Your task to perform on an android device: turn on javascript in the chrome app Image 0: 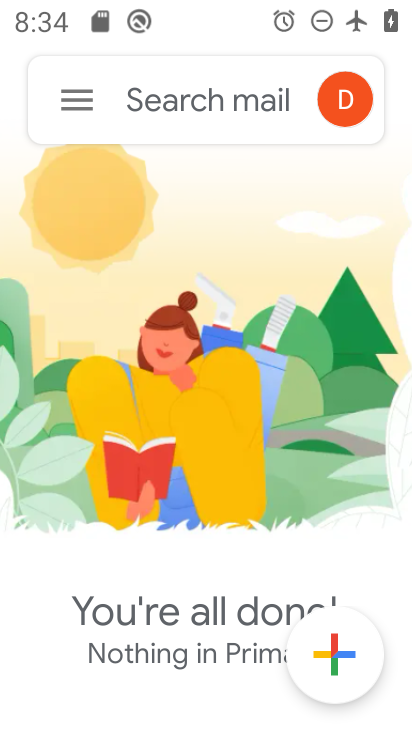
Step 0: press home button
Your task to perform on an android device: turn on javascript in the chrome app Image 1: 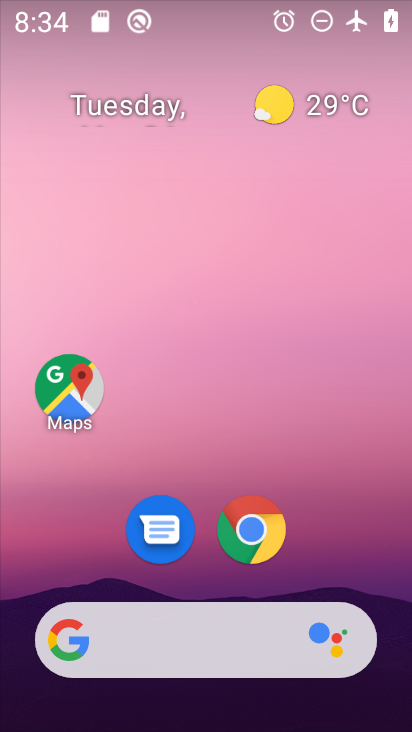
Step 1: drag from (393, 659) to (238, 89)
Your task to perform on an android device: turn on javascript in the chrome app Image 2: 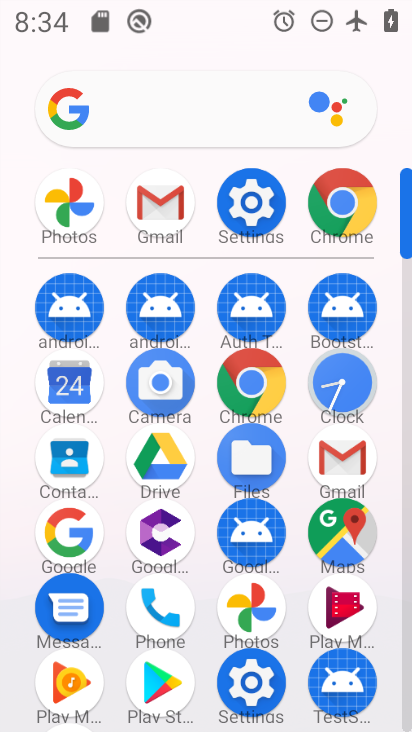
Step 2: click (351, 204)
Your task to perform on an android device: turn on javascript in the chrome app Image 3: 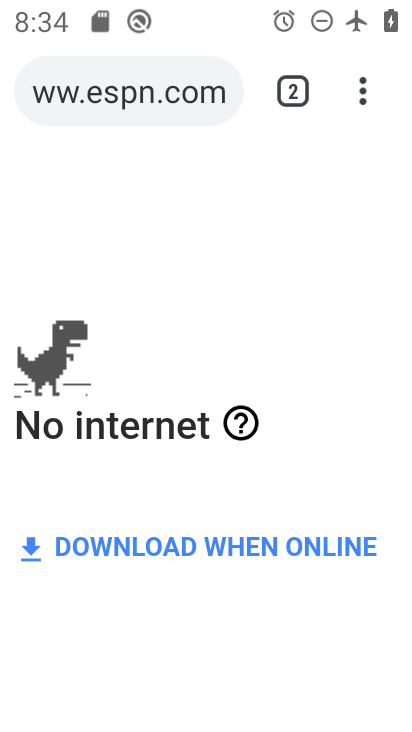
Step 3: press back button
Your task to perform on an android device: turn on javascript in the chrome app Image 4: 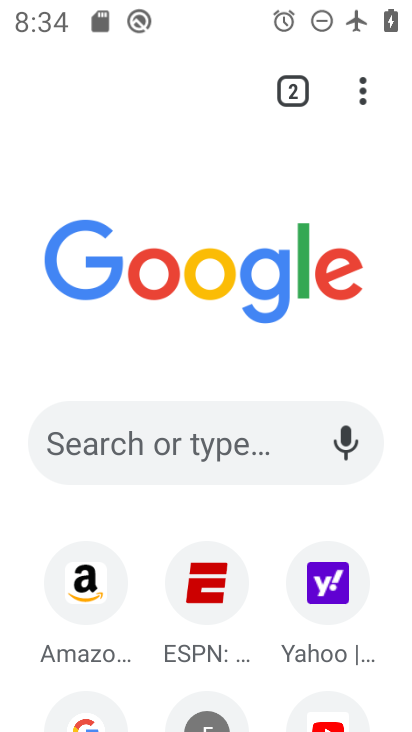
Step 4: click (358, 89)
Your task to perform on an android device: turn on javascript in the chrome app Image 5: 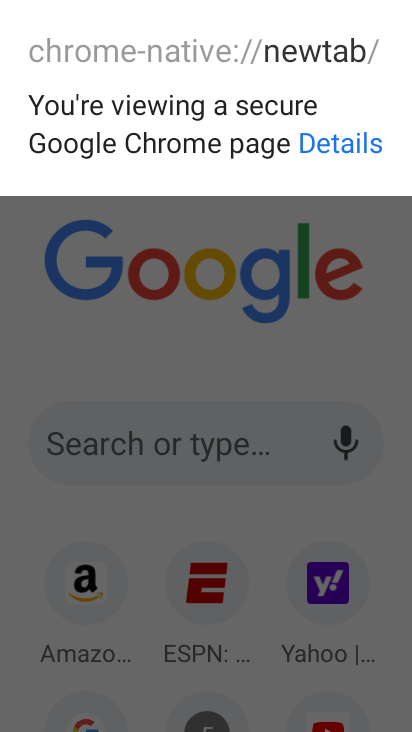
Step 5: press back button
Your task to perform on an android device: turn on javascript in the chrome app Image 6: 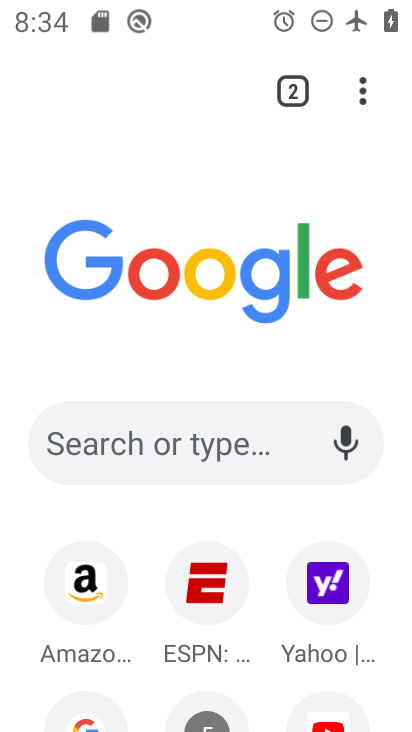
Step 6: click (370, 89)
Your task to perform on an android device: turn on javascript in the chrome app Image 7: 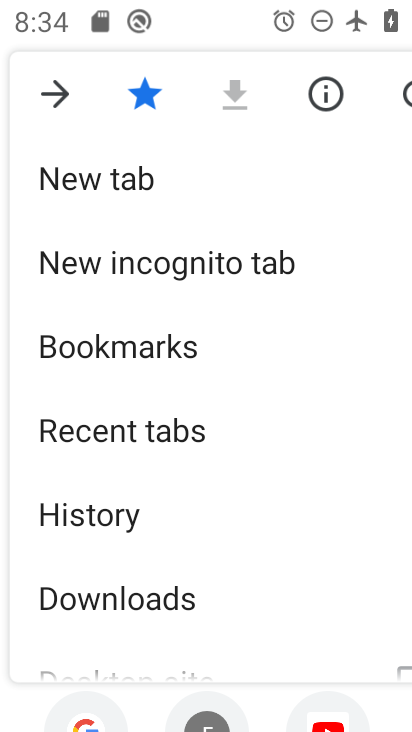
Step 7: drag from (202, 668) to (258, 229)
Your task to perform on an android device: turn on javascript in the chrome app Image 8: 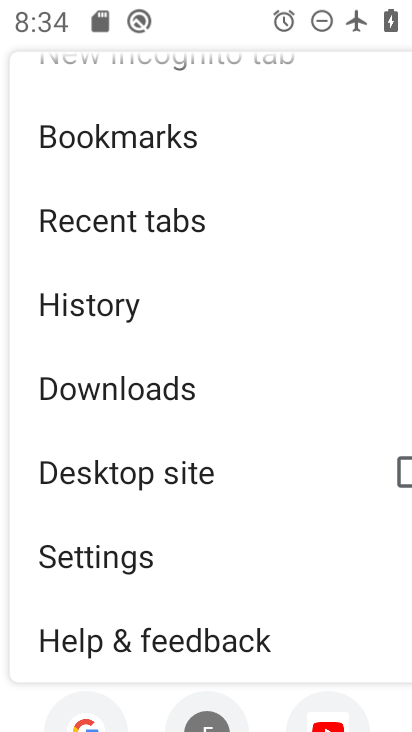
Step 8: click (122, 547)
Your task to perform on an android device: turn on javascript in the chrome app Image 9: 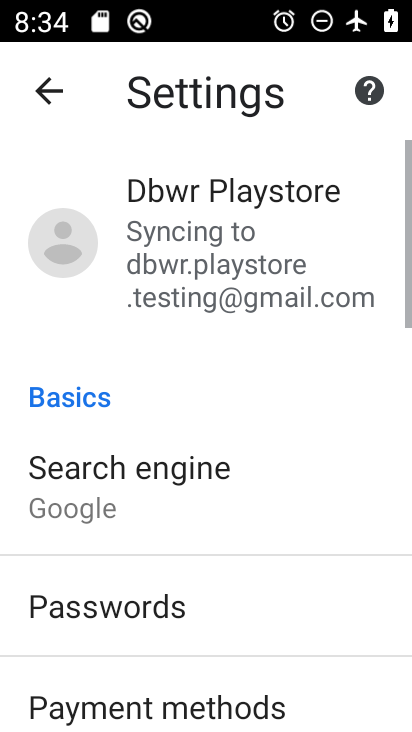
Step 9: drag from (135, 613) to (155, 569)
Your task to perform on an android device: turn on javascript in the chrome app Image 10: 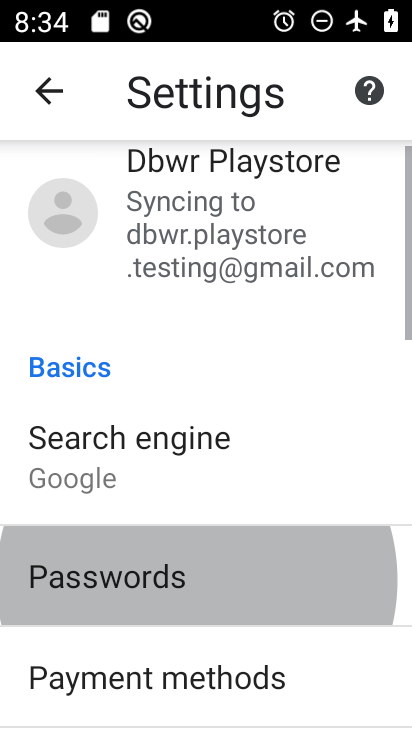
Step 10: drag from (192, 451) to (223, 237)
Your task to perform on an android device: turn on javascript in the chrome app Image 11: 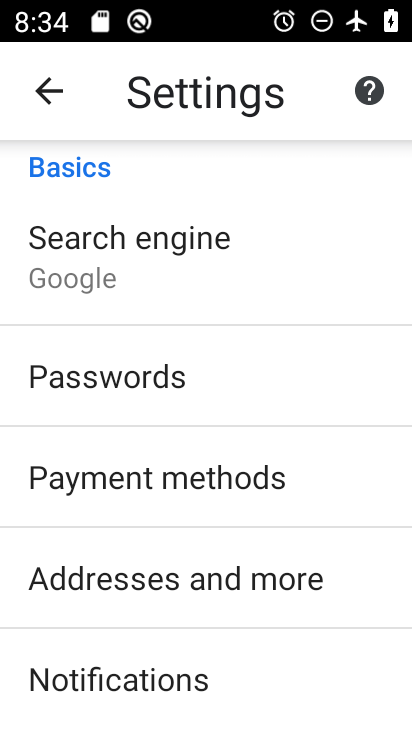
Step 11: drag from (204, 630) to (255, 243)
Your task to perform on an android device: turn on javascript in the chrome app Image 12: 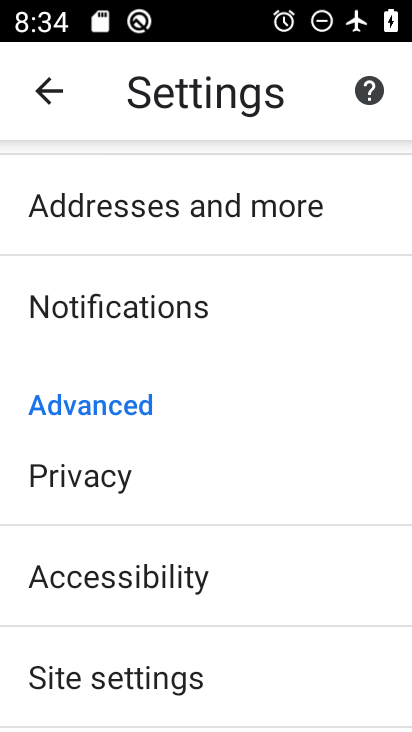
Step 12: drag from (168, 661) to (170, 271)
Your task to perform on an android device: turn on javascript in the chrome app Image 13: 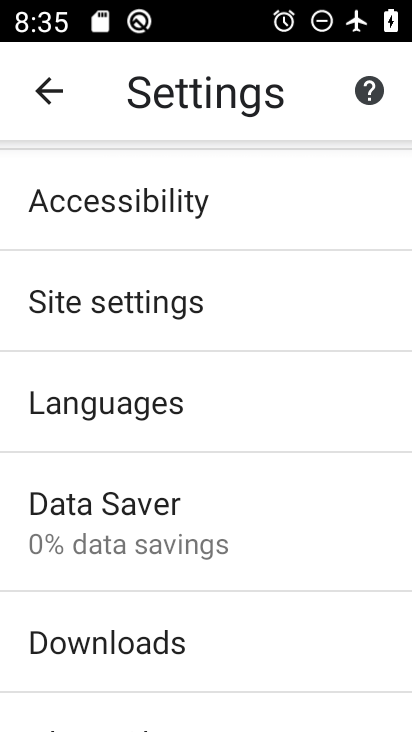
Step 13: click (234, 312)
Your task to perform on an android device: turn on javascript in the chrome app Image 14: 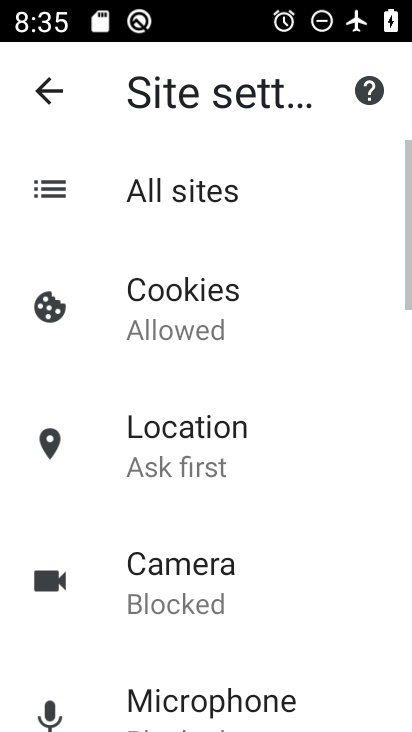
Step 14: drag from (214, 703) to (258, 230)
Your task to perform on an android device: turn on javascript in the chrome app Image 15: 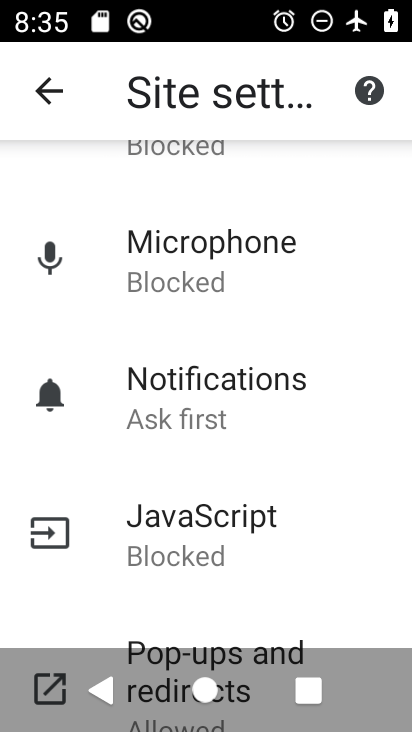
Step 15: click (236, 536)
Your task to perform on an android device: turn on javascript in the chrome app Image 16: 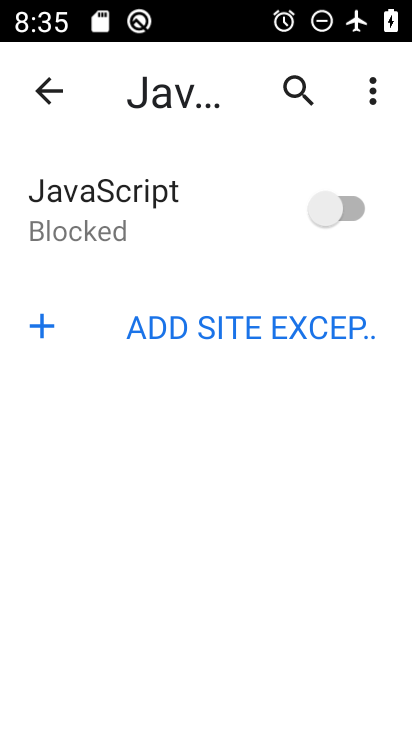
Step 16: click (344, 208)
Your task to perform on an android device: turn on javascript in the chrome app Image 17: 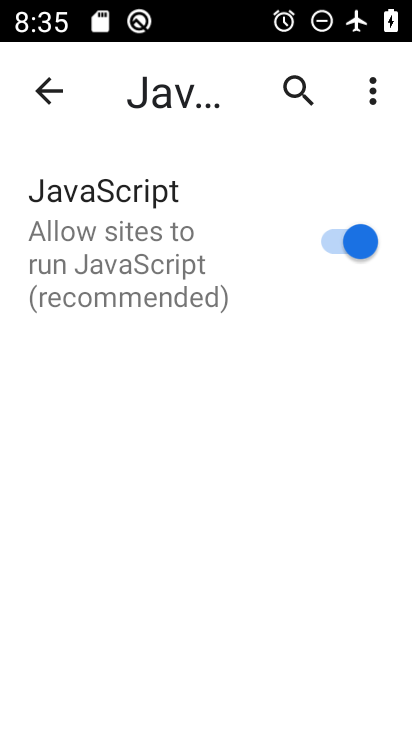
Step 17: task complete